Your task to perform on an android device: Open privacy settings Image 0: 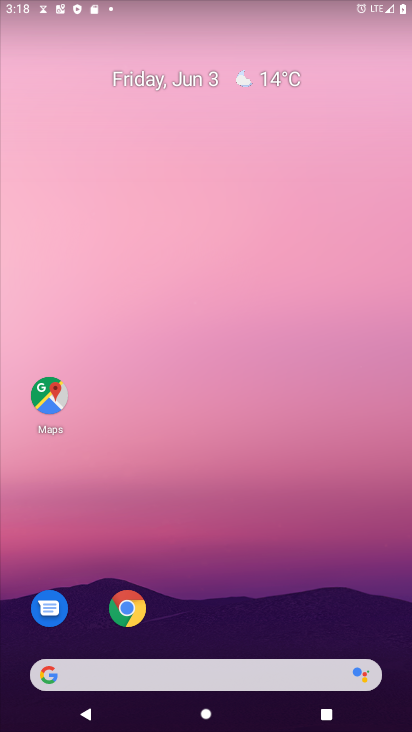
Step 0: drag from (227, 673) to (212, 60)
Your task to perform on an android device: Open privacy settings Image 1: 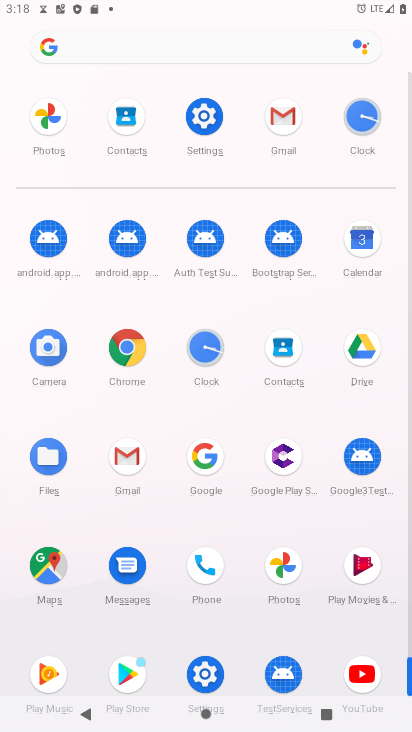
Step 1: click (186, 121)
Your task to perform on an android device: Open privacy settings Image 2: 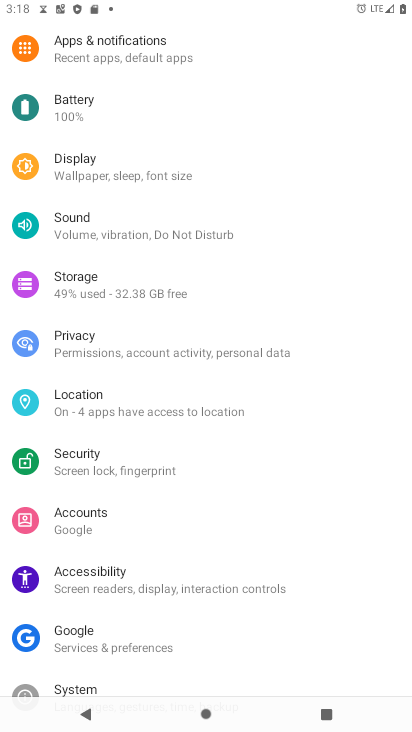
Step 2: click (105, 349)
Your task to perform on an android device: Open privacy settings Image 3: 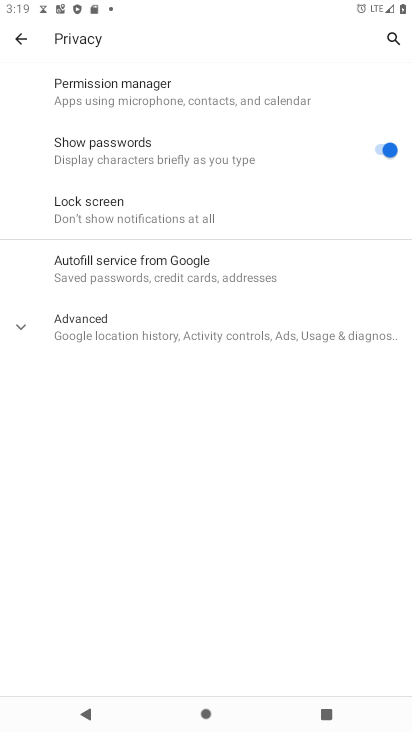
Step 3: task complete